Your task to perform on an android device: all mails in gmail Image 0: 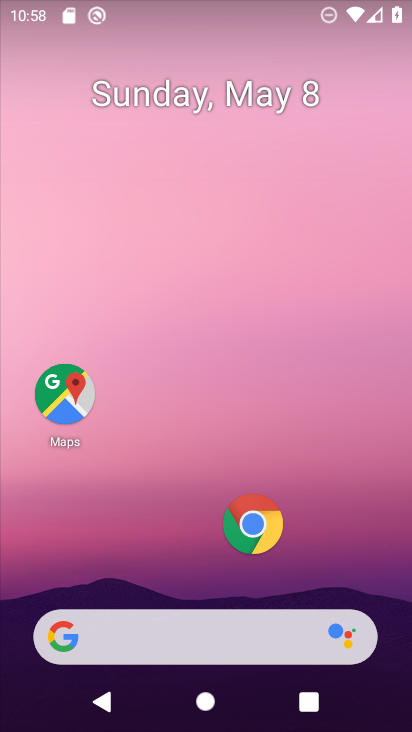
Step 0: drag from (177, 498) to (213, 120)
Your task to perform on an android device: all mails in gmail Image 1: 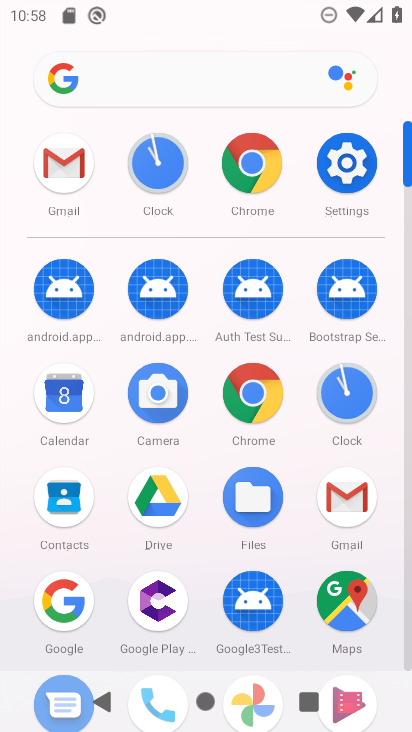
Step 1: click (70, 165)
Your task to perform on an android device: all mails in gmail Image 2: 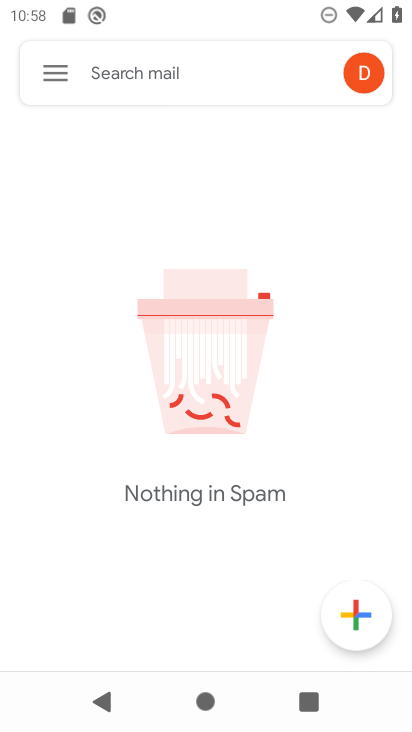
Step 2: click (54, 62)
Your task to perform on an android device: all mails in gmail Image 3: 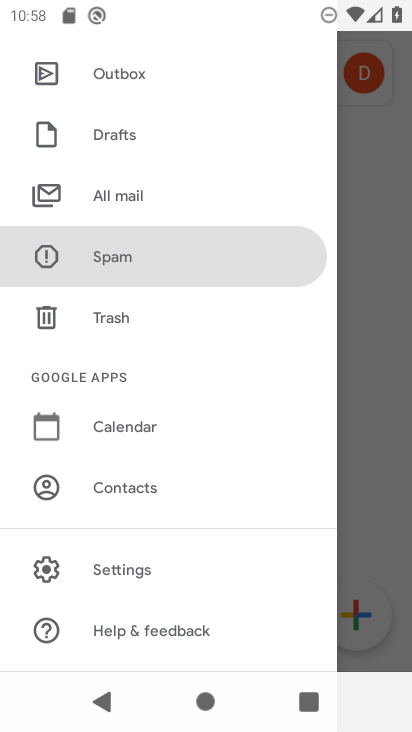
Step 3: click (134, 189)
Your task to perform on an android device: all mails in gmail Image 4: 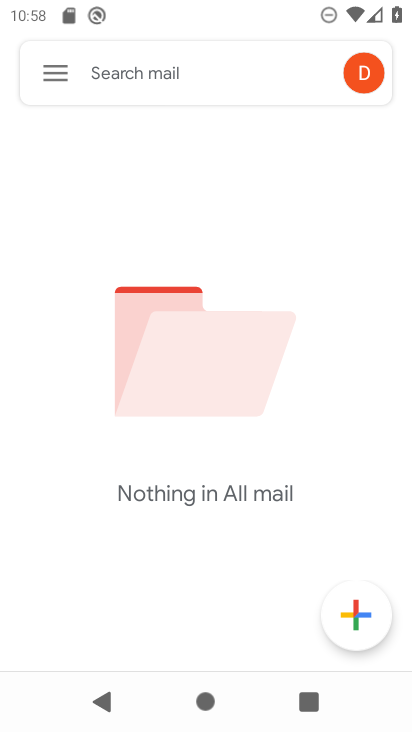
Step 4: task complete